Your task to perform on an android device: add a contact Image 0: 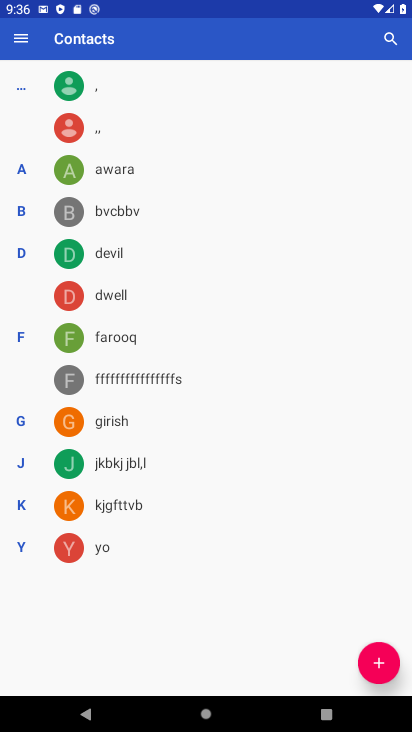
Step 0: press home button
Your task to perform on an android device: add a contact Image 1: 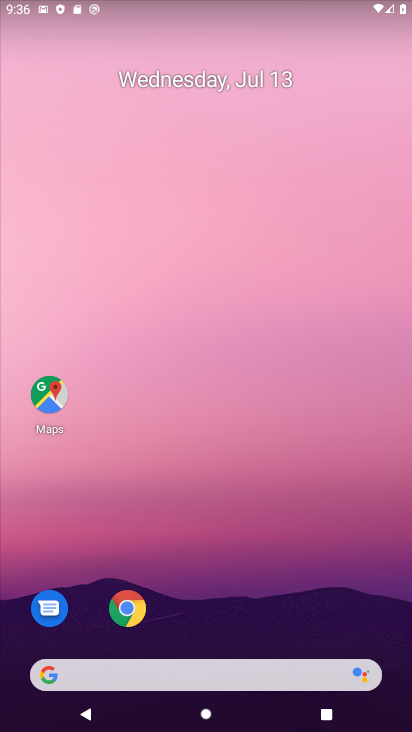
Step 1: drag from (44, 459) to (204, 108)
Your task to perform on an android device: add a contact Image 2: 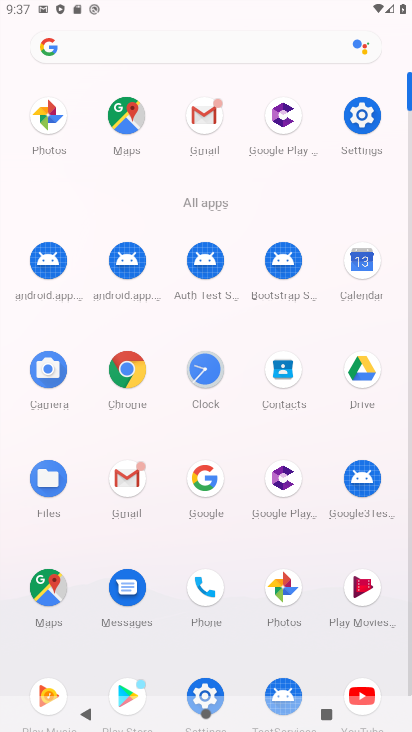
Step 2: click (198, 593)
Your task to perform on an android device: add a contact Image 3: 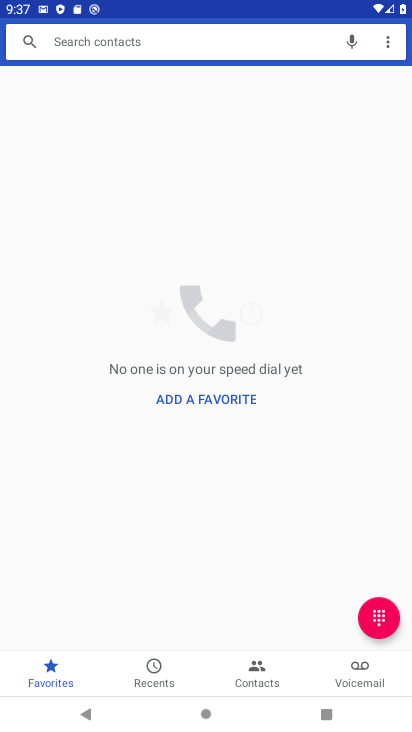
Step 3: click (252, 676)
Your task to perform on an android device: add a contact Image 4: 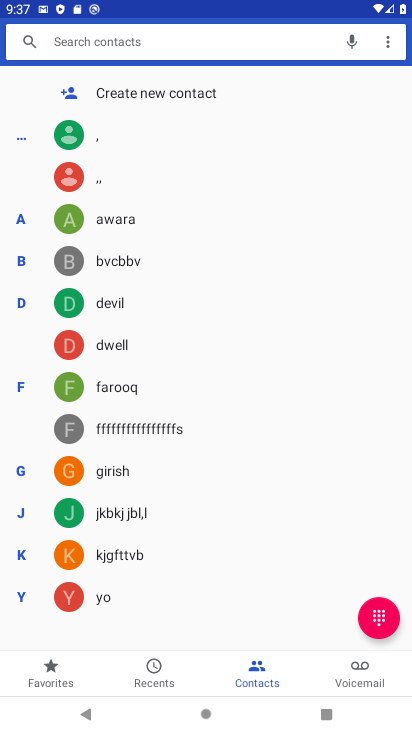
Step 4: click (147, 92)
Your task to perform on an android device: add a contact Image 5: 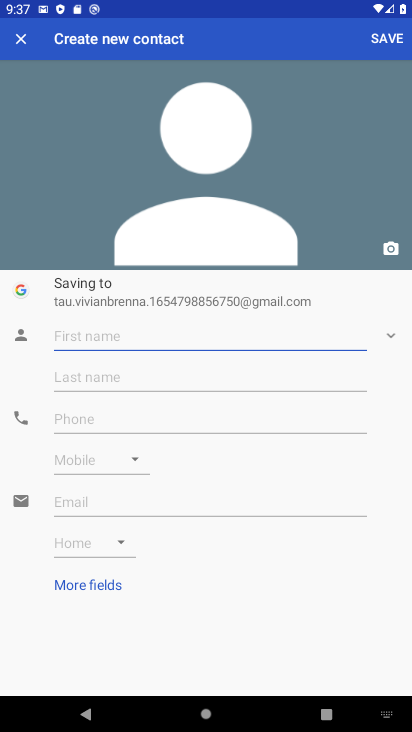
Step 5: type "nbvnhh"
Your task to perform on an android device: add a contact Image 6: 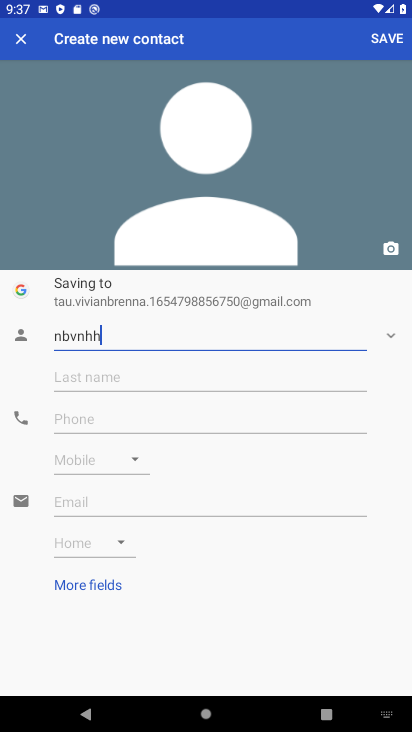
Step 6: type ""
Your task to perform on an android device: add a contact Image 7: 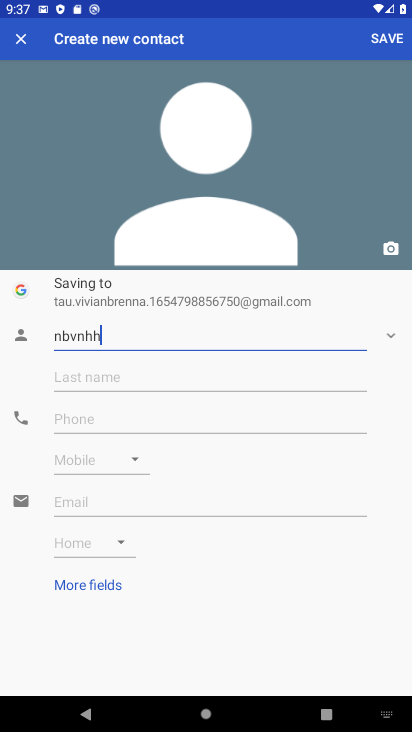
Step 7: click (389, 46)
Your task to perform on an android device: add a contact Image 8: 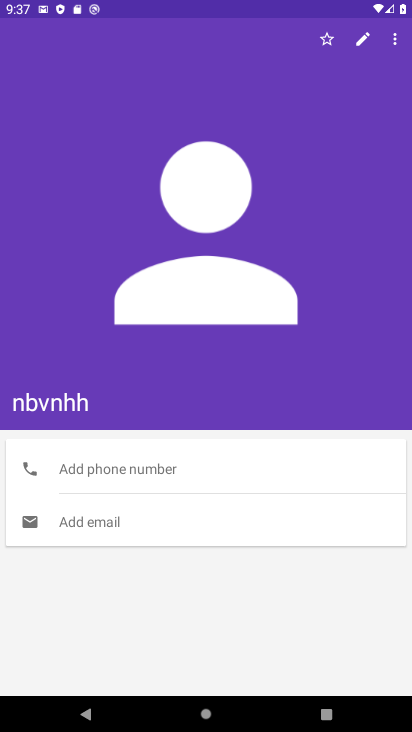
Step 8: task complete